Your task to perform on an android device: Search for seafood restaurants on Google Maps Image 0: 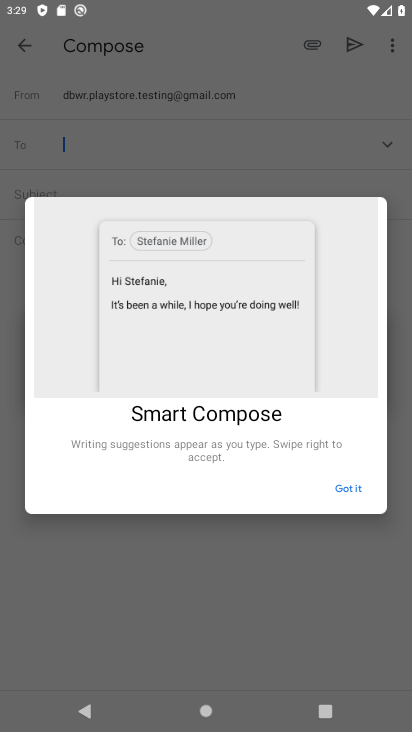
Step 0: press home button
Your task to perform on an android device: Search for seafood restaurants on Google Maps Image 1: 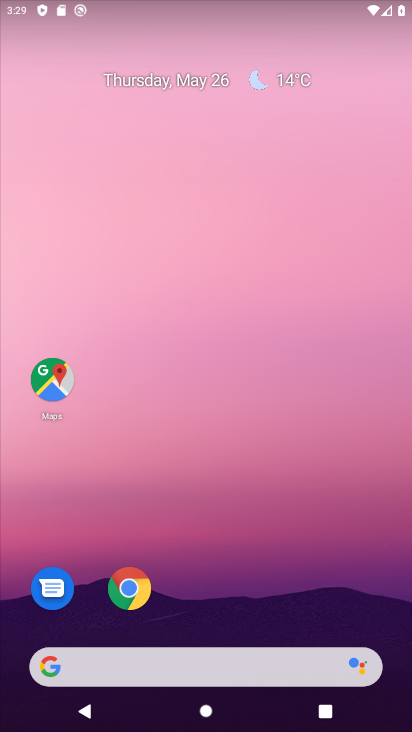
Step 1: click (50, 399)
Your task to perform on an android device: Search for seafood restaurants on Google Maps Image 2: 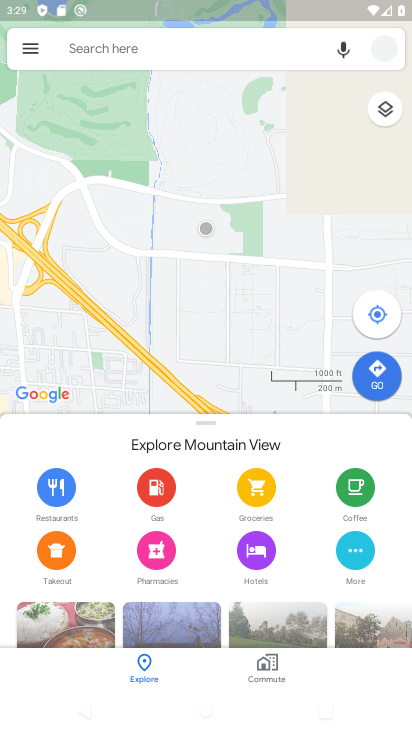
Step 2: click (125, 37)
Your task to perform on an android device: Search for seafood restaurants on Google Maps Image 3: 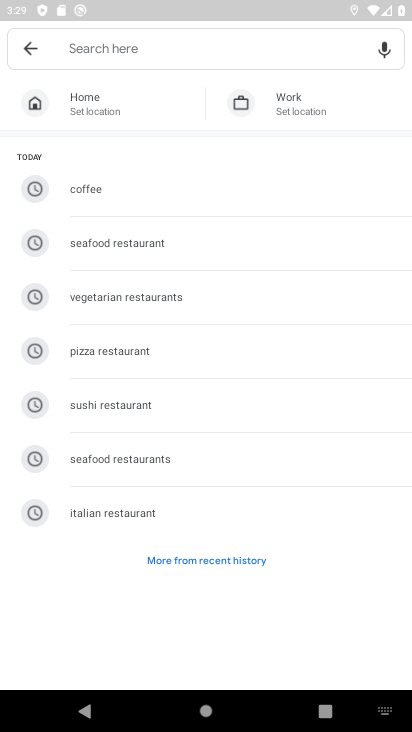
Step 3: type "sefood"
Your task to perform on an android device: Search for seafood restaurants on Google Maps Image 4: 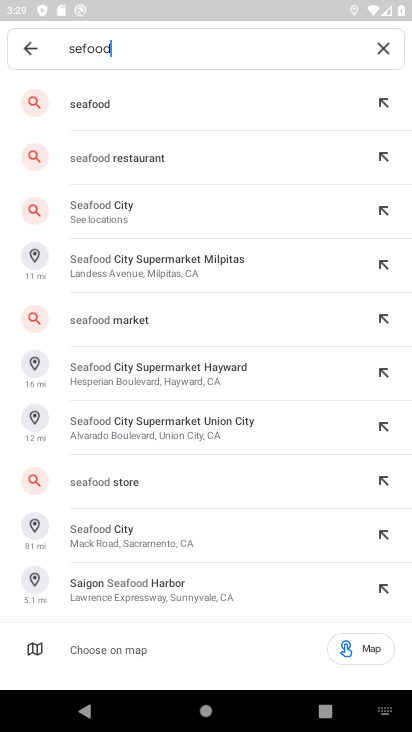
Step 4: click (148, 89)
Your task to perform on an android device: Search for seafood restaurants on Google Maps Image 5: 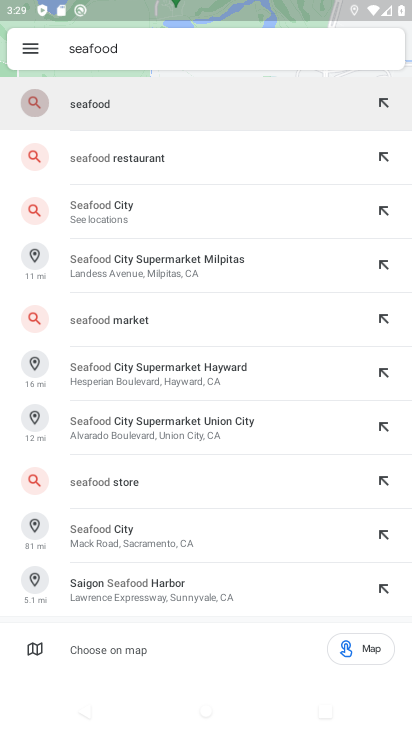
Step 5: task complete